Your task to perform on an android device: visit the assistant section in the google photos Image 0: 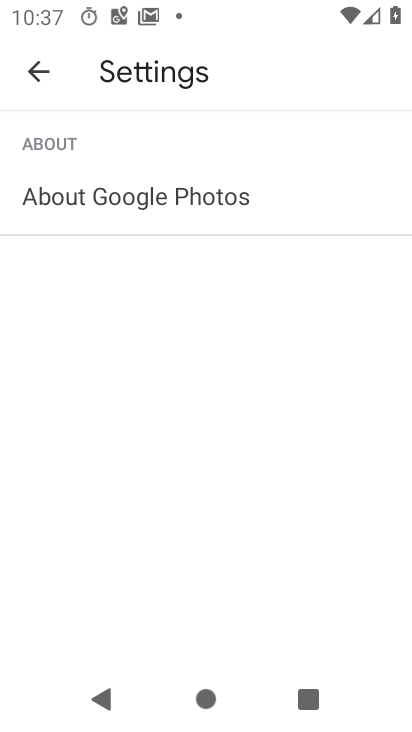
Step 0: press home button
Your task to perform on an android device: visit the assistant section in the google photos Image 1: 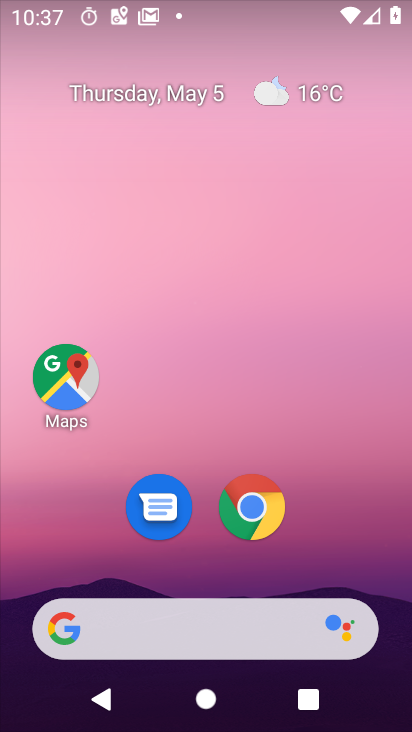
Step 1: drag from (178, 581) to (194, 167)
Your task to perform on an android device: visit the assistant section in the google photos Image 2: 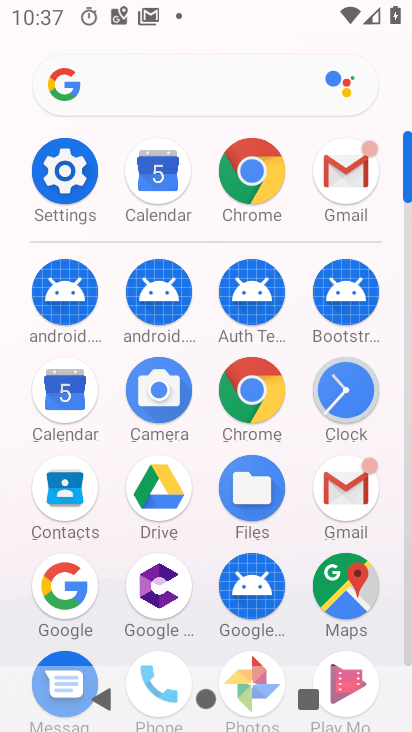
Step 2: click (253, 671)
Your task to perform on an android device: visit the assistant section in the google photos Image 3: 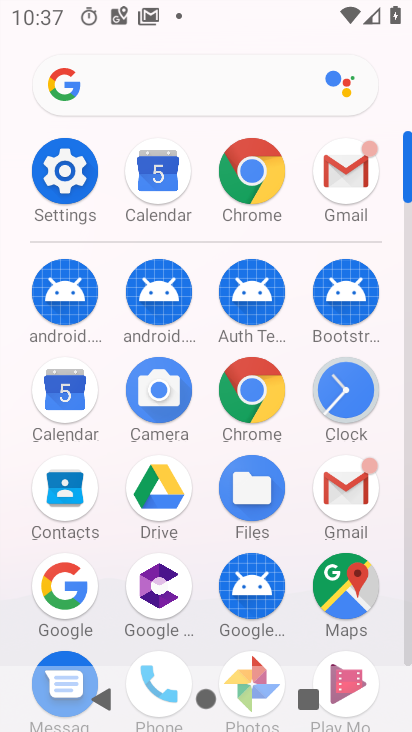
Step 3: drag from (289, 628) to (308, 361)
Your task to perform on an android device: visit the assistant section in the google photos Image 4: 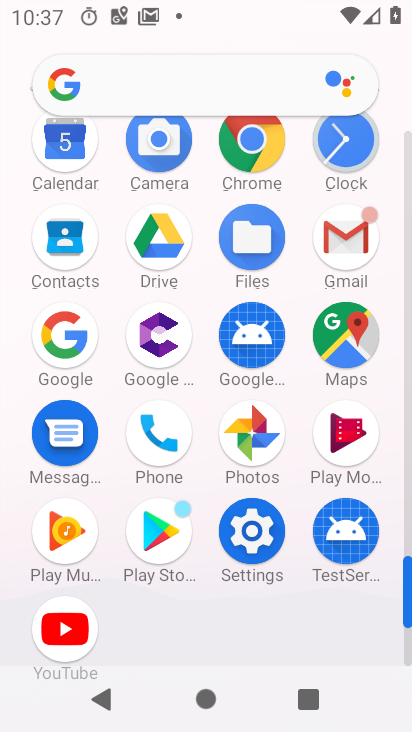
Step 4: click (249, 433)
Your task to perform on an android device: visit the assistant section in the google photos Image 5: 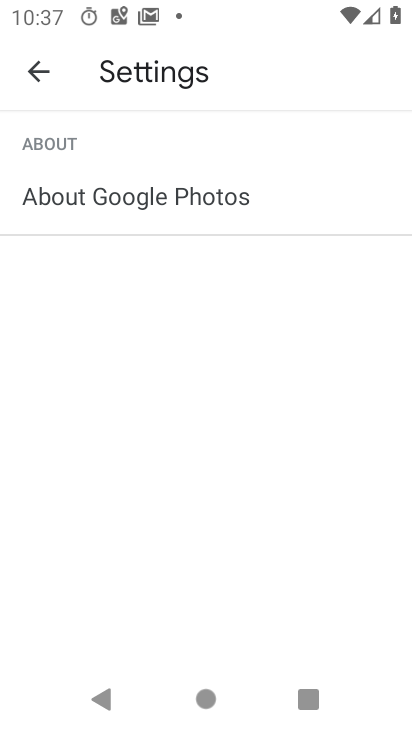
Step 5: click (34, 74)
Your task to perform on an android device: visit the assistant section in the google photos Image 6: 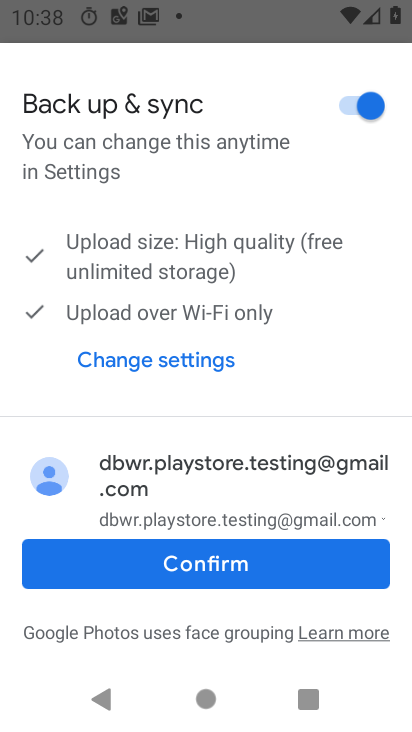
Step 6: click (227, 569)
Your task to perform on an android device: visit the assistant section in the google photos Image 7: 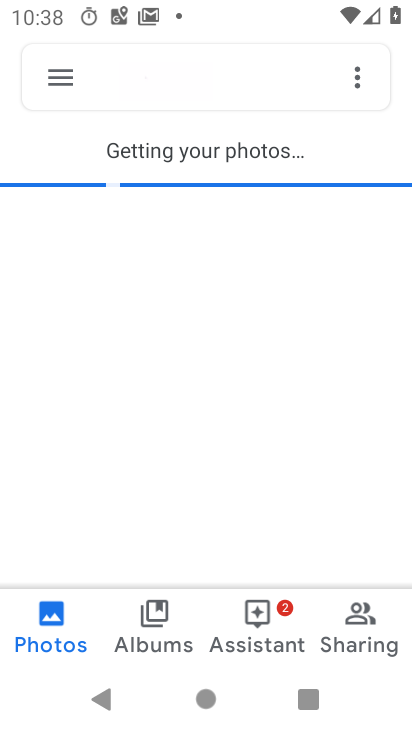
Step 7: click (259, 635)
Your task to perform on an android device: visit the assistant section in the google photos Image 8: 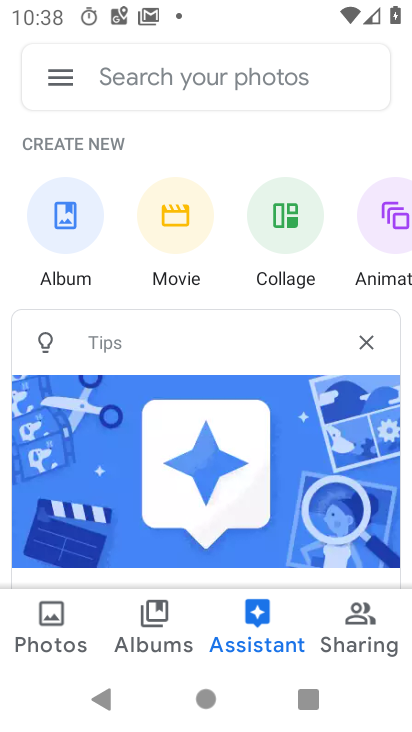
Step 8: task complete